Your task to perform on an android device: open a bookmark in the chrome app Image 0: 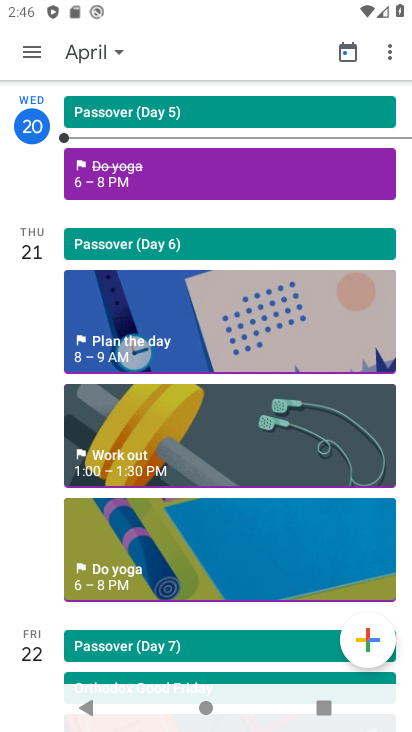
Step 0: press home button
Your task to perform on an android device: open a bookmark in the chrome app Image 1: 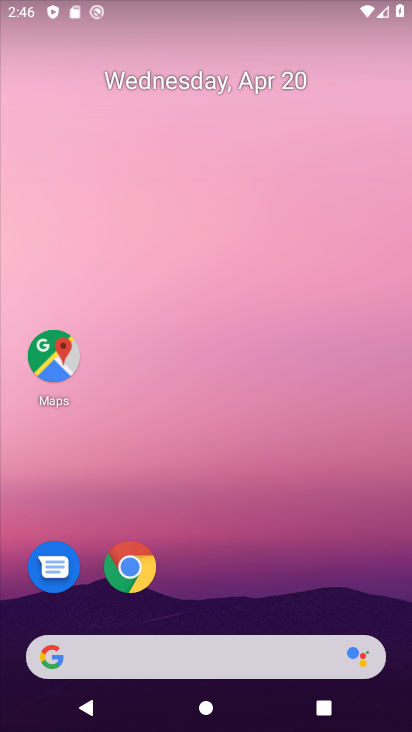
Step 1: drag from (195, 534) to (196, 121)
Your task to perform on an android device: open a bookmark in the chrome app Image 2: 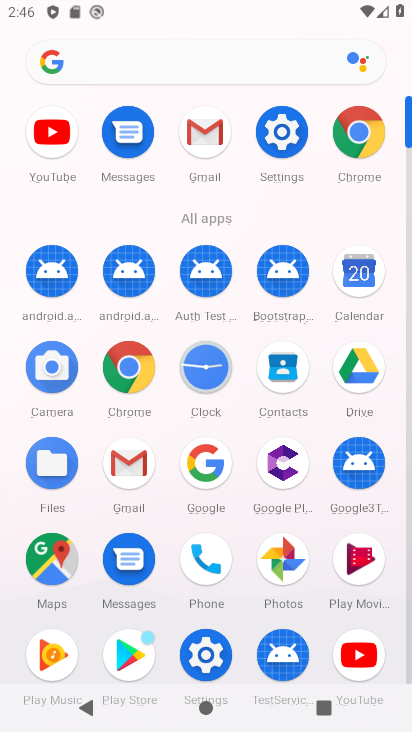
Step 2: click (132, 379)
Your task to perform on an android device: open a bookmark in the chrome app Image 3: 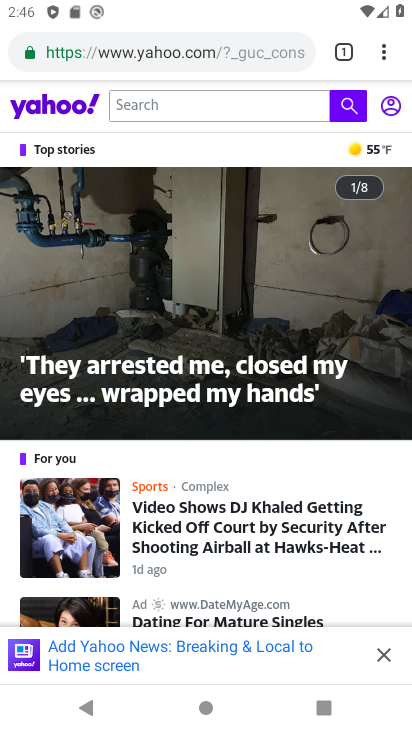
Step 3: click (382, 59)
Your task to perform on an android device: open a bookmark in the chrome app Image 4: 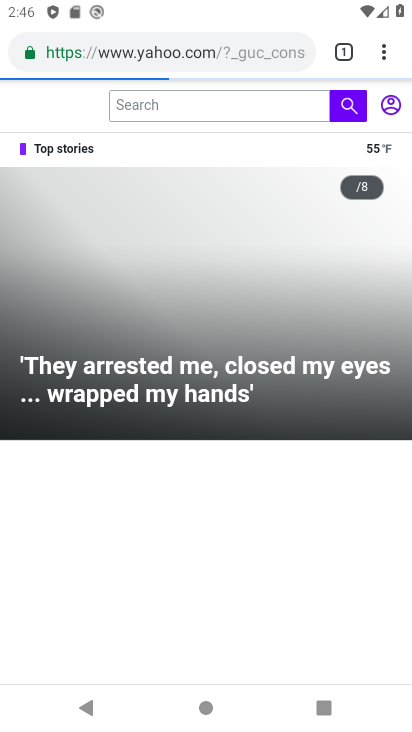
Step 4: click (388, 60)
Your task to perform on an android device: open a bookmark in the chrome app Image 5: 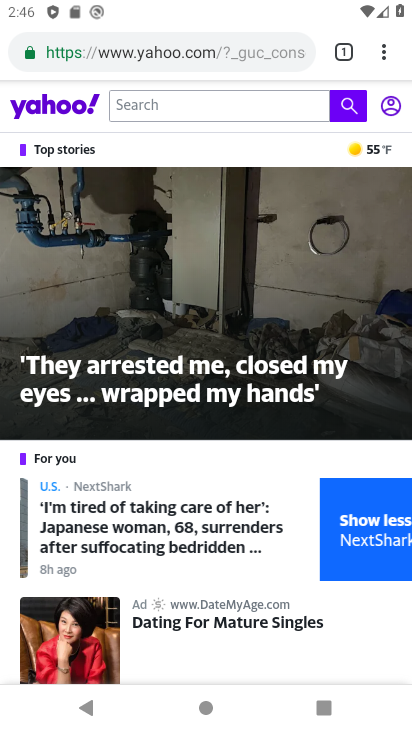
Step 5: click (345, 55)
Your task to perform on an android device: open a bookmark in the chrome app Image 6: 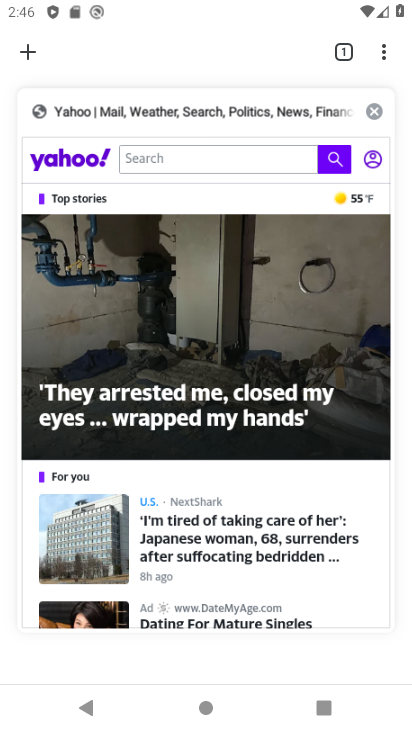
Step 6: click (372, 110)
Your task to perform on an android device: open a bookmark in the chrome app Image 7: 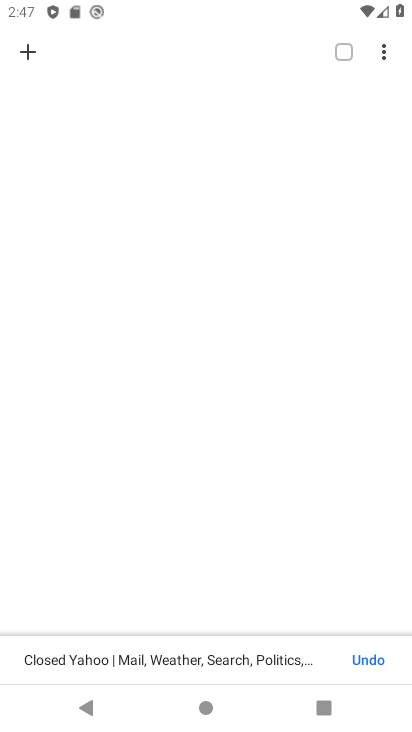
Step 7: click (26, 51)
Your task to perform on an android device: open a bookmark in the chrome app Image 8: 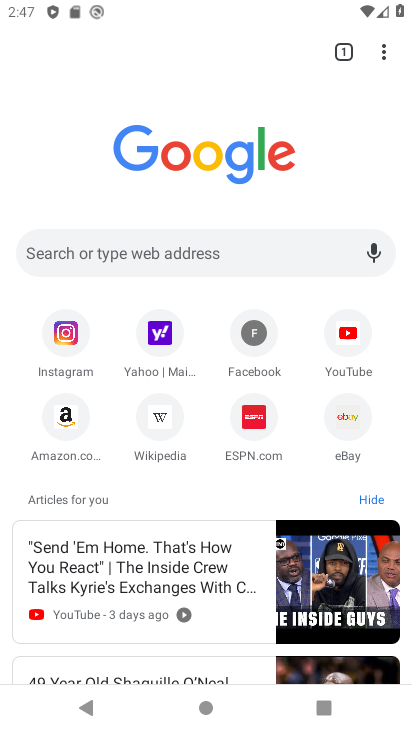
Step 8: click (62, 423)
Your task to perform on an android device: open a bookmark in the chrome app Image 9: 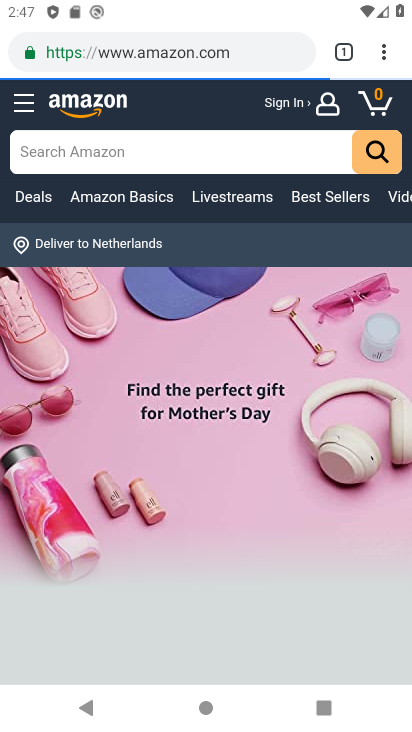
Step 9: task complete